Your task to perform on an android device: turn on notifications settings in the gmail app Image 0: 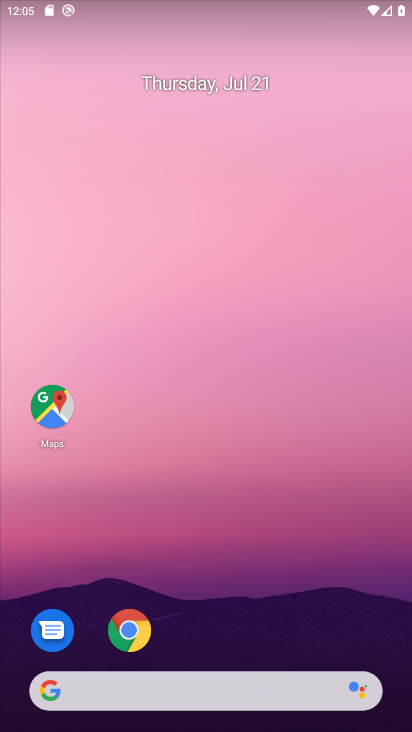
Step 0: drag from (191, 412) to (220, 11)
Your task to perform on an android device: turn on notifications settings in the gmail app Image 1: 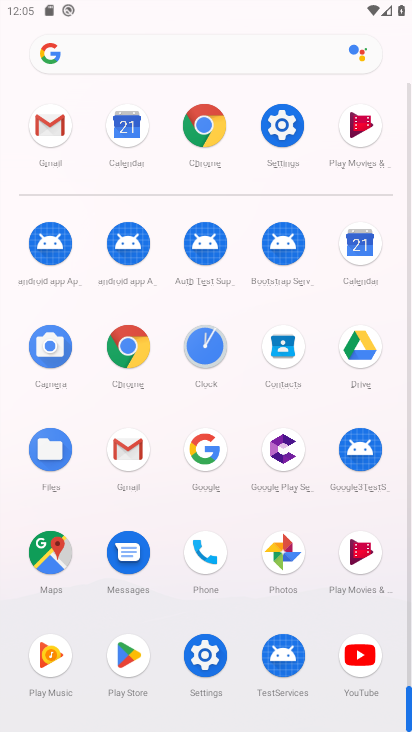
Step 1: click (112, 446)
Your task to perform on an android device: turn on notifications settings in the gmail app Image 2: 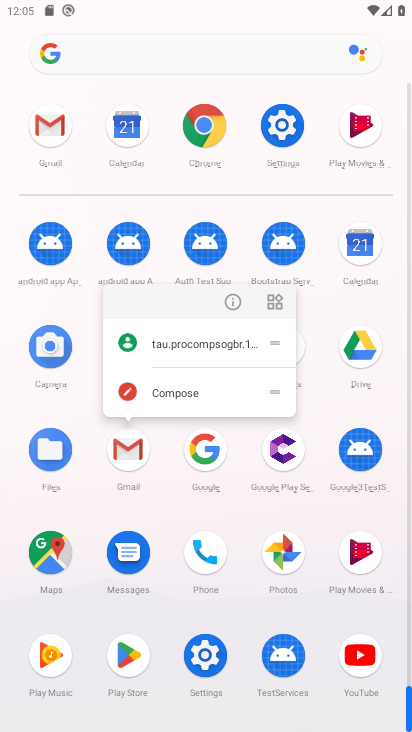
Step 2: click (224, 307)
Your task to perform on an android device: turn on notifications settings in the gmail app Image 3: 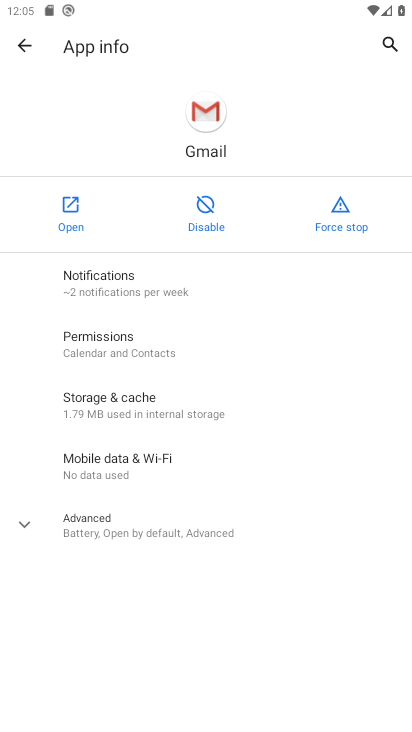
Step 3: click (65, 223)
Your task to perform on an android device: turn on notifications settings in the gmail app Image 4: 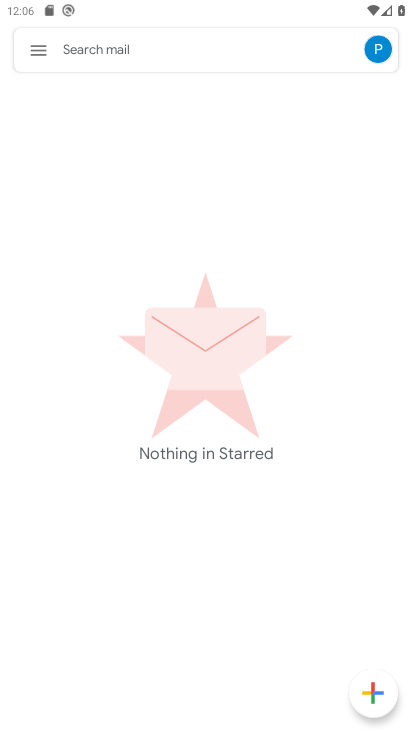
Step 4: drag from (235, 546) to (308, 84)
Your task to perform on an android device: turn on notifications settings in the gmail app Image 5: 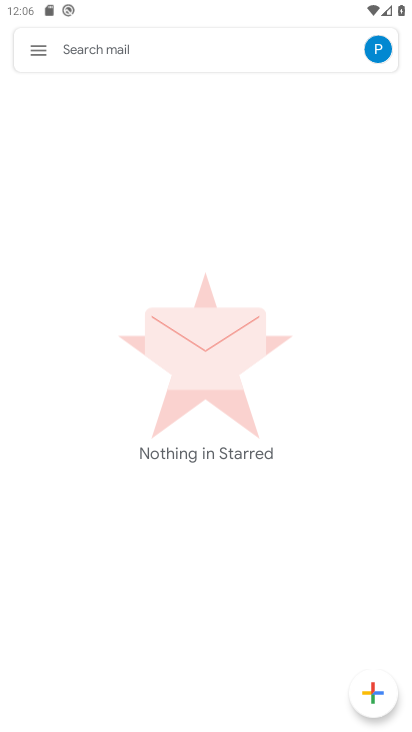
Step 5: click (25, 44)
Your task to perform on an android device: turn on notifications settings in the gmail app Image 6: 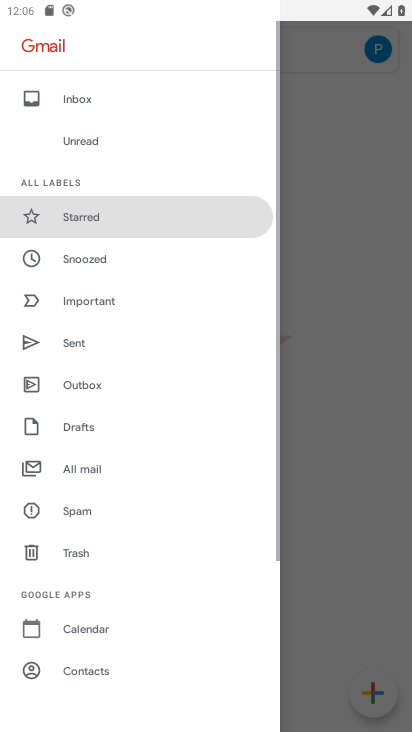
Step 6: drag from (108, 580) to (210, 0)
Your task to perform on an android device: turn on notifications settings in the gmail app Image 7: 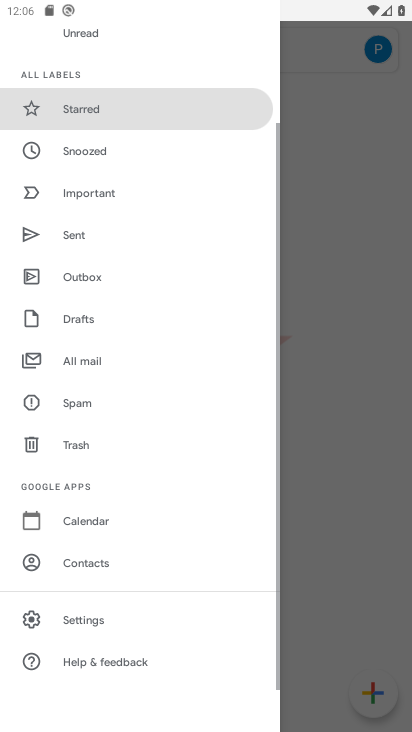
Step 7: click (84, 628)
Your task to perform on an android device: turn on notifications settings in the gmail app Image 8: 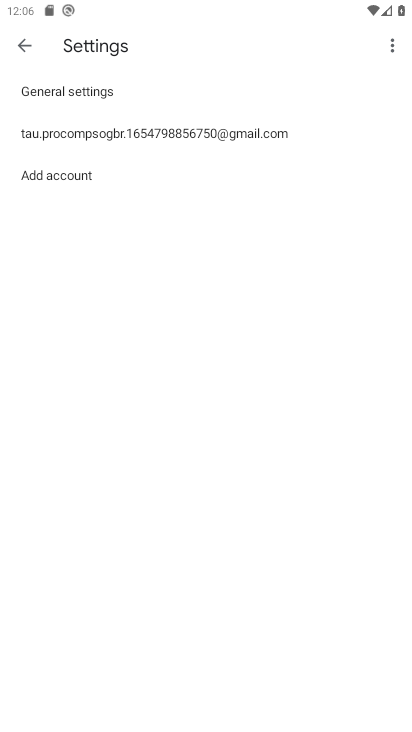
Step 8: drag from (120, 623) to (149, 147)
Your task to perform on an android device: turn on notifications settings in the gmail app Image 9: 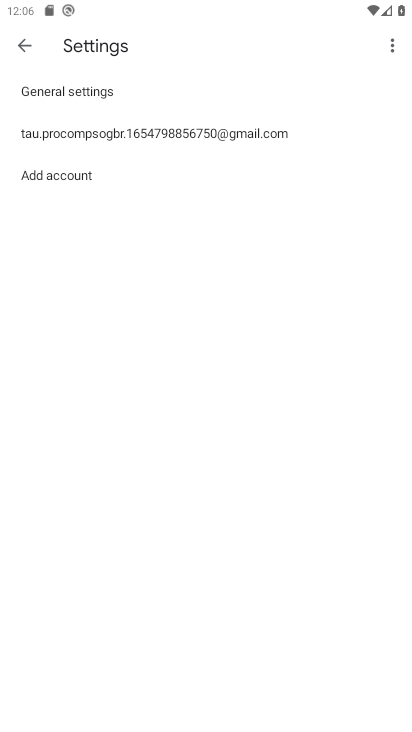
Step 9: click (136, 151)
Your task to perform on an android device: turn on notifications settings in the gmail app Image 10: 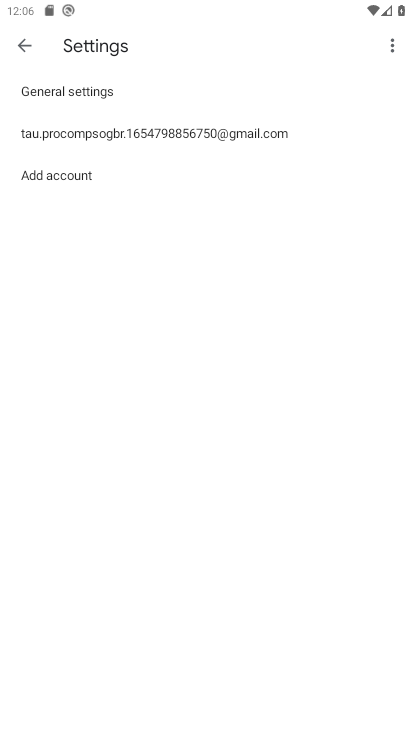
Step 10: click (130, 147)
Your task to perform on an android device: turn on notifications settings in the gmail app Image 11: 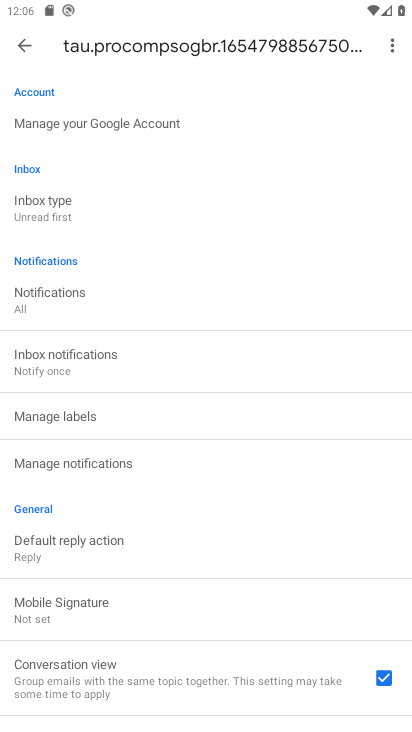
Step 11: click (65, 451)
Your task to perform on an android device: turn on notifications settings in the gmail app Image 12: 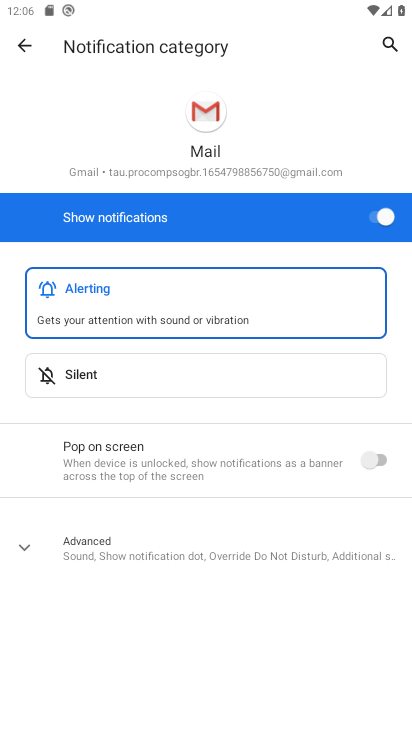
Step 12: click (372, 223)
Your task to perform on an android device: turn on notifications settings in the gmail app Image 13: 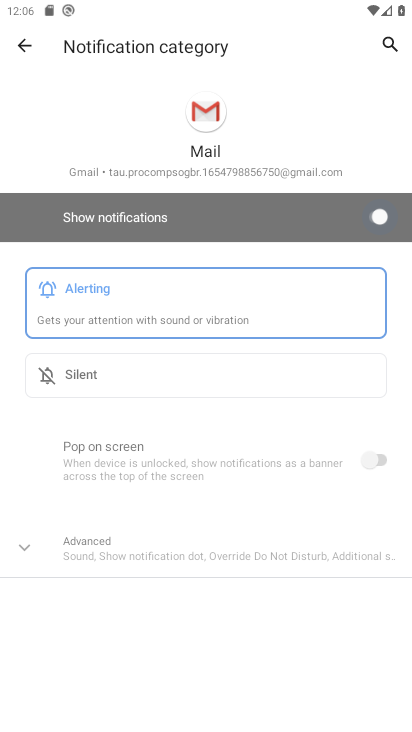
Step 13: click (372, 223)
Your task to perform on an android device: turn on notifications settings in the gmail app Image 14: 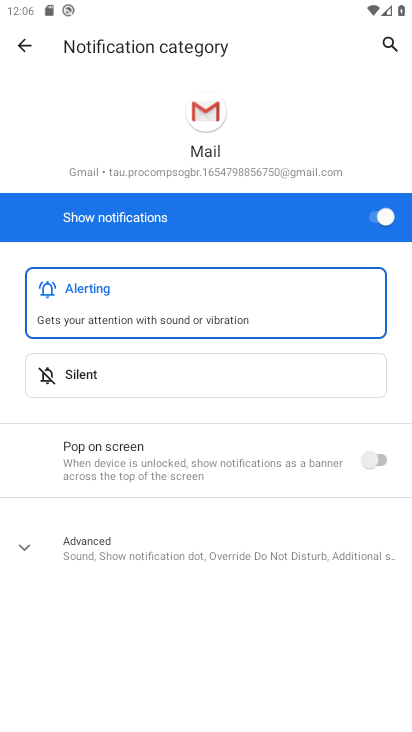
Step 14: task complete